Your task to perform on an android device: open sync settings in chrome Image 0: 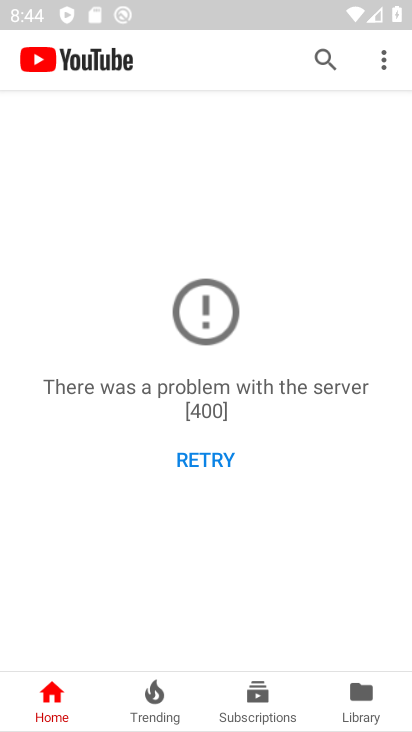
Step 0: press home button
Your task to perform on an android device: open sync settings in chrome Image 1: 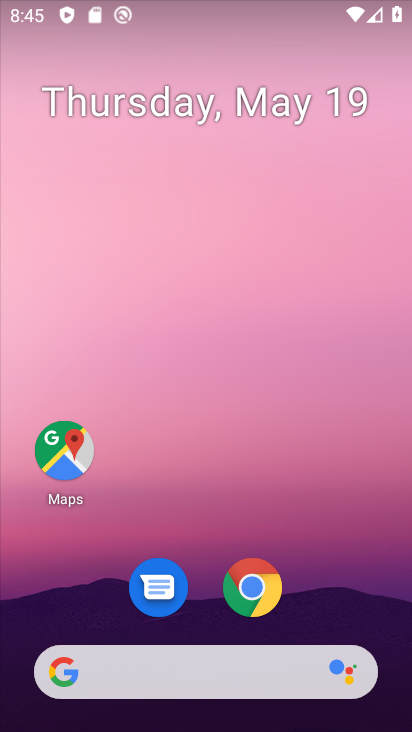
Step 1: drag from (393, 554) to (297, 1)
Your task to perform on an android device: open sync settings in chrome Image 2: 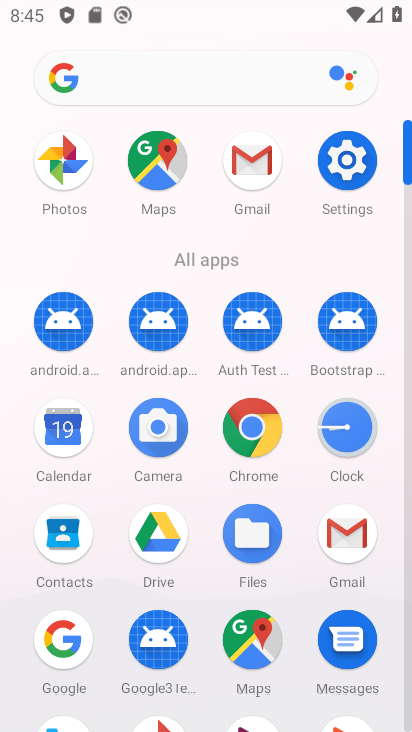
Step 2: click (256, 420)
Your task to perform on an android device: open sync settings in chrome Image 3: 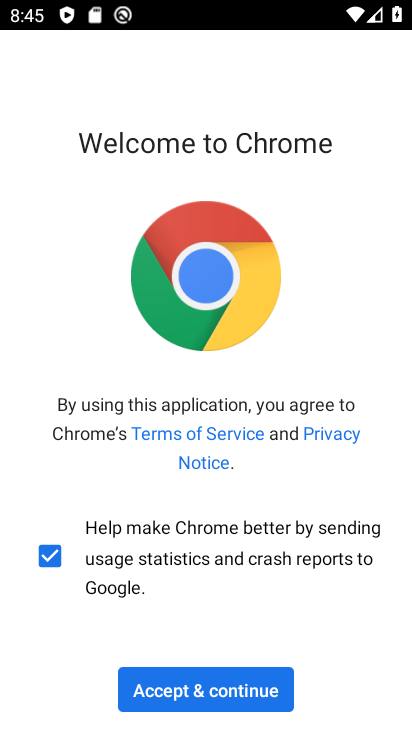
Step 3: click (219, 698)
Your task to perform on an android device: open sync settings in chrome Image 4: 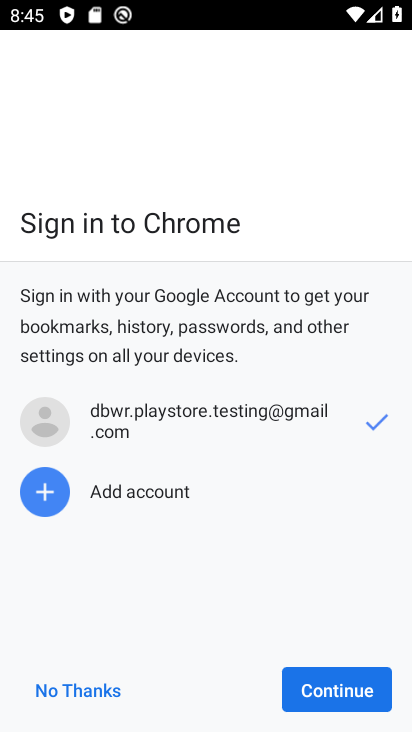
Step 4: click (313, 691)
Your task to perform on an android device: open sync settings in chrome Image 5: 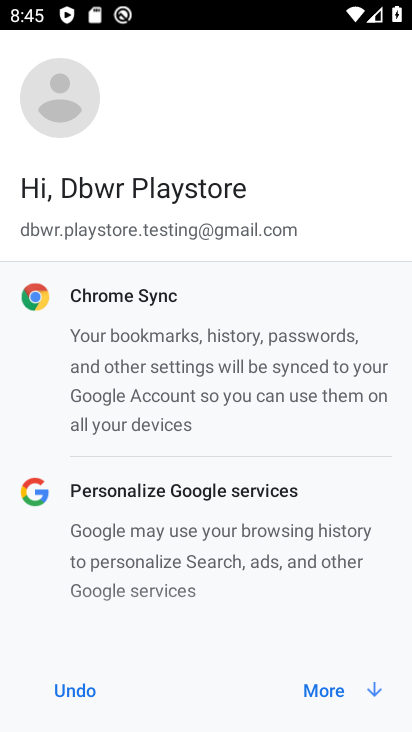
Step 5: click (310, 691)
Your task to perform on an android device: open sync settings in chrome Image 6: 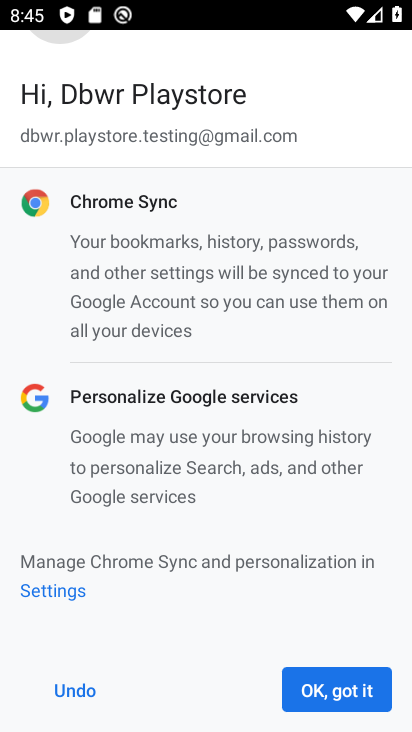
Step 6: click (310, 691)
Your task to perform on an android device: open sync settings in chrome Image 7: 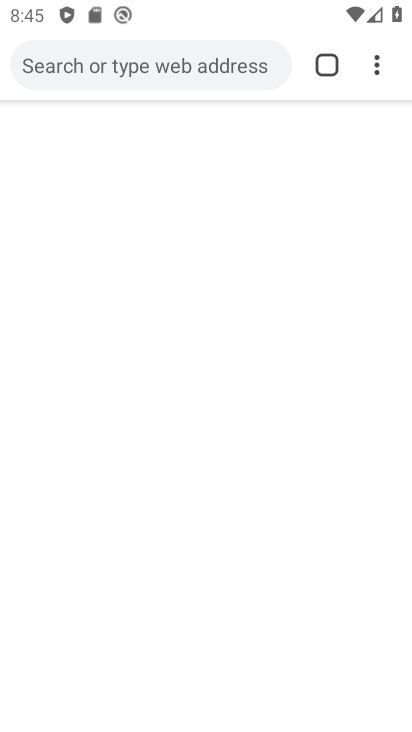
Step 7: drag from (378, 66) to (185, 559)
Your task to perform on an android device: open sync settings in chrome Image 8: 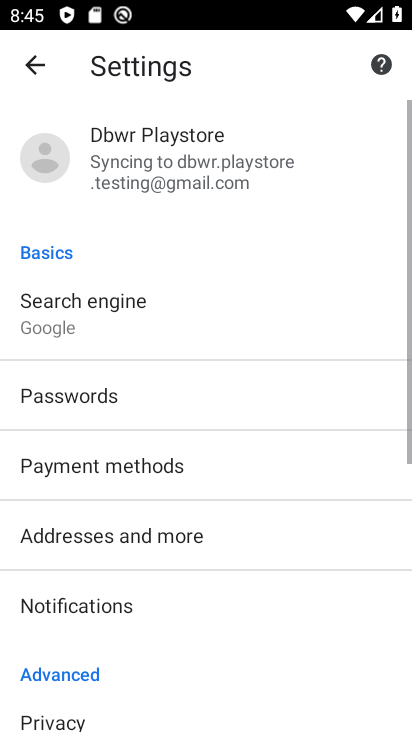
Step 8: drag from (182, 528) to (243, 76)
Your task to perform on an android device: open sync settings in chrome Image 9: 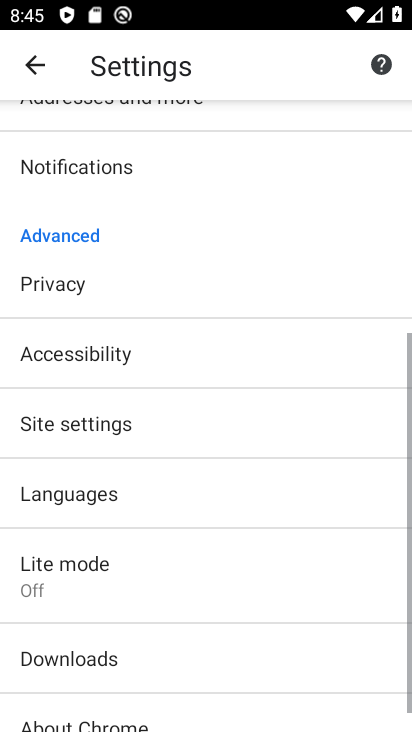
Step 9: click (256, 59)
Your task to perform on an android device: open sync settings in chrome Image 10: 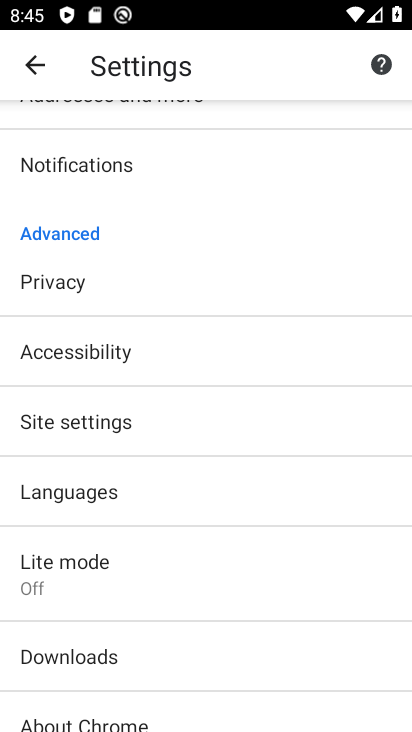
Step 10: drag from (177, 539) to (314, 107)
Your task to perform on an android device: open sync settings in chrome Image 11: 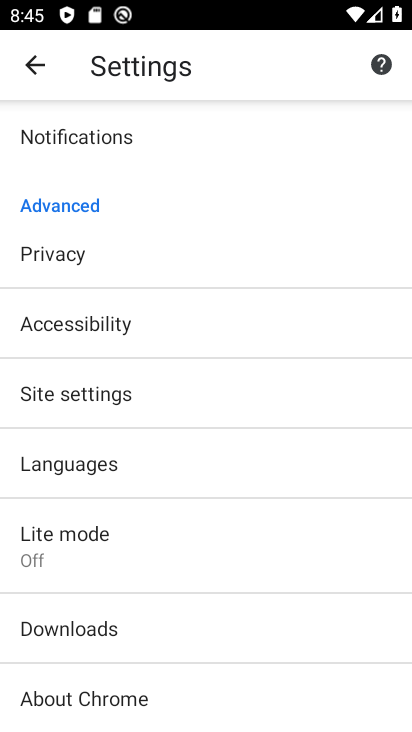
Step 11: drag from (243, 168) to (233, 360)
Your task to perform on an android device: open sync settings in chrome Image 12: 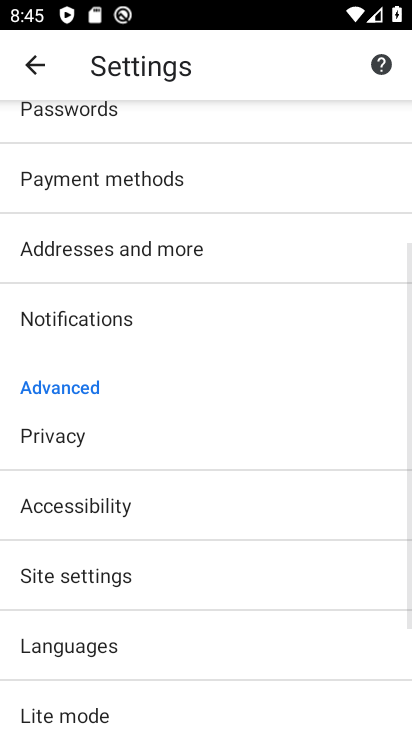
Step 12: drag from (215, 208) to (259, 576)
Your task to perform on an android device: open sync settings in chrome Image 13: 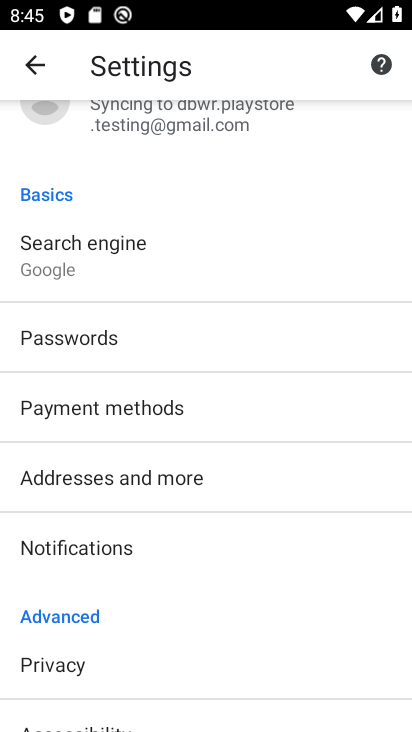
Step 13: drag from (261, 622) to (373, 234)
Your task to perform on an android device: open sync settings in chrome Image 14: 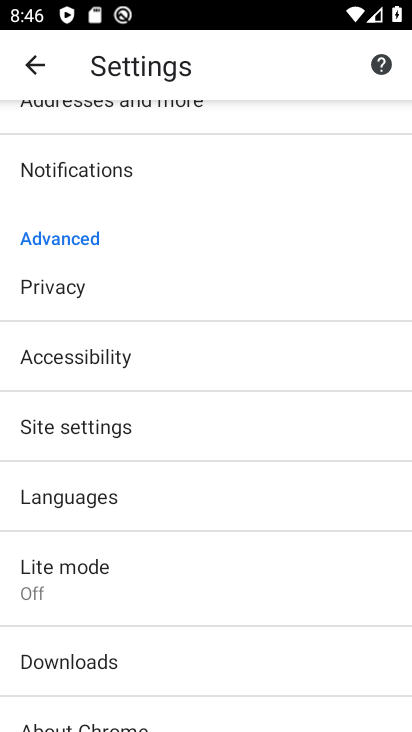
Step 14: drag from (86, 298) to (181, 681)
Your task to perform on an android device: open sync settings in chrome Image 15: 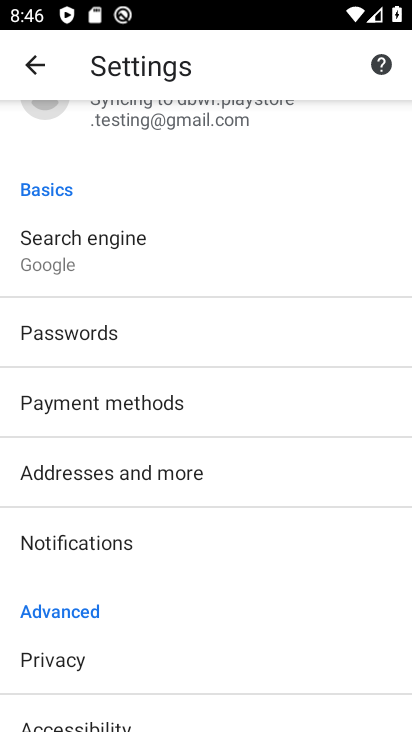
Step 15: click (160, 109)
Your task to perform on an android device: open sync settings in chrome Image 16: 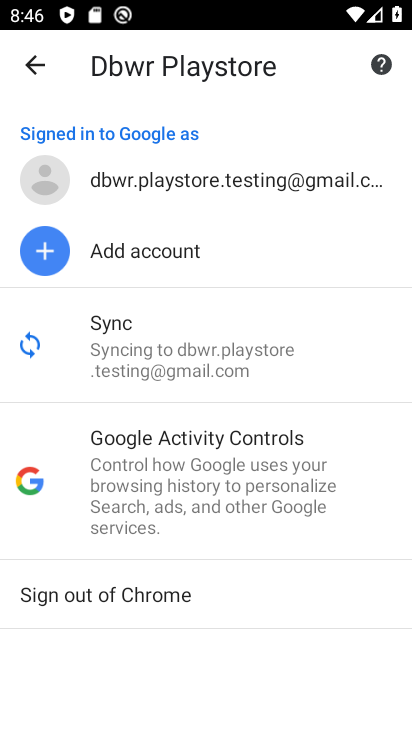
Step 16: task complete